Your task to perform on an android device: Go to calendar. Show me events next week Image 0: 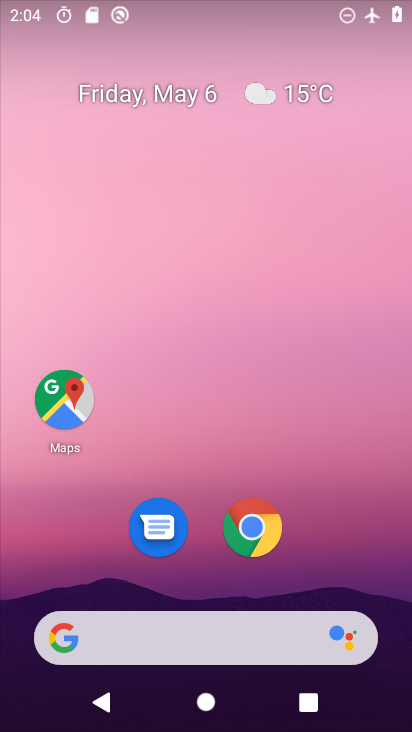
Step 0: drag from (298, 497) to (85, 101)
Your task to perform on an android device: Go to calendar. Show me events next week Image 1: 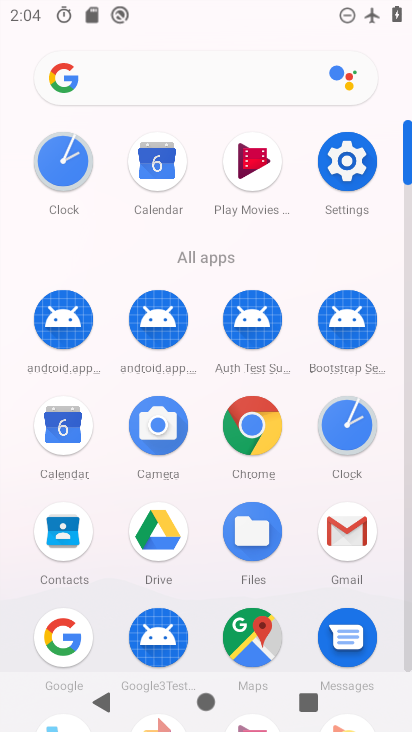
Step 1: click (168, 171)
Your task to perform on an android device: Go to calendar. Show me events next week Image 2: 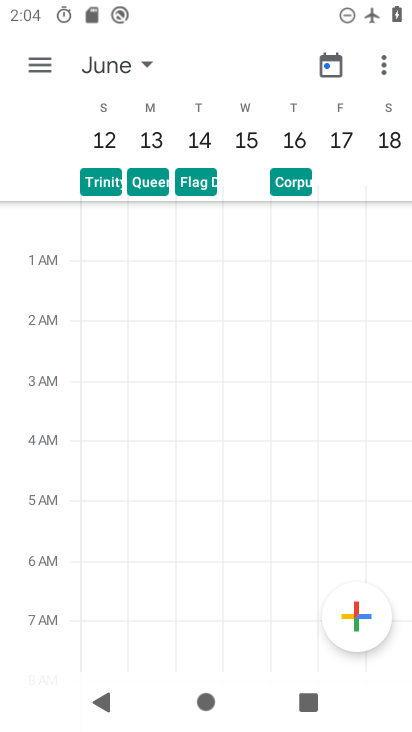
Step 2: click (124, 63)
Your task to perform on an android device: Go to calendar. Show me events next week Image 3: 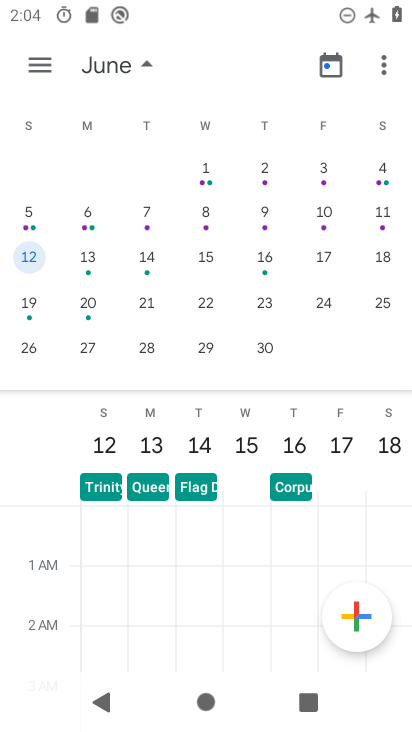
Step 3: drag from (28, 290) to (382, 306)
Your task to perform on an android device: Go to calendar. Show me events next week Image 4: 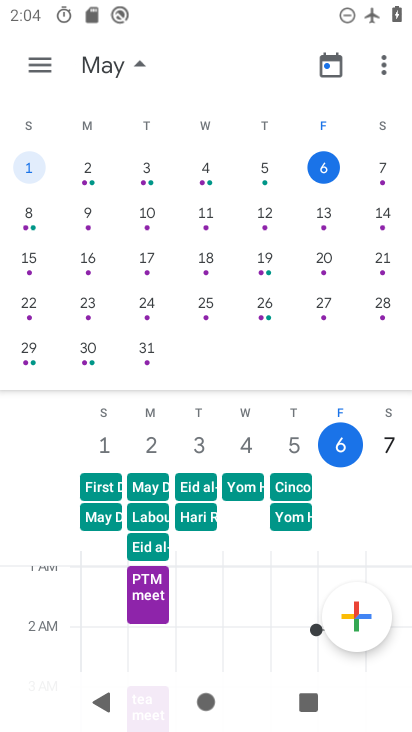
Step 4: click (328, 168)
Your task to perform on an android device: Go to calendar. Show me events next week Image 5: 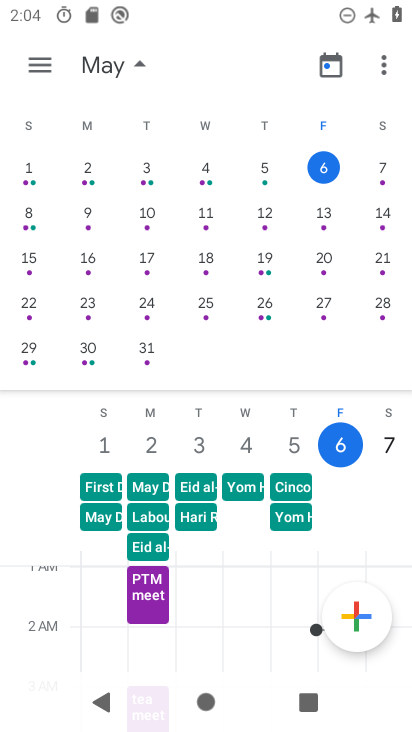
Step 5: click (328, 168)
Your task to perform on an android device: Go to calendar. Show me events next week Image 6: 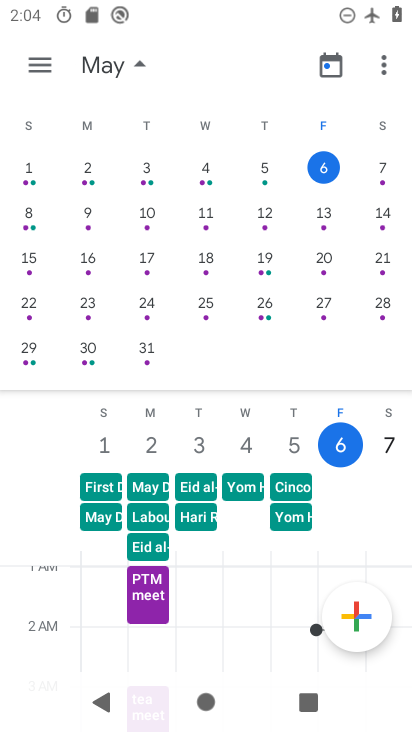
Step 6: click (45, 63)
Your task to perform on an android device: Go to calendar. Show me events next week Image 7: 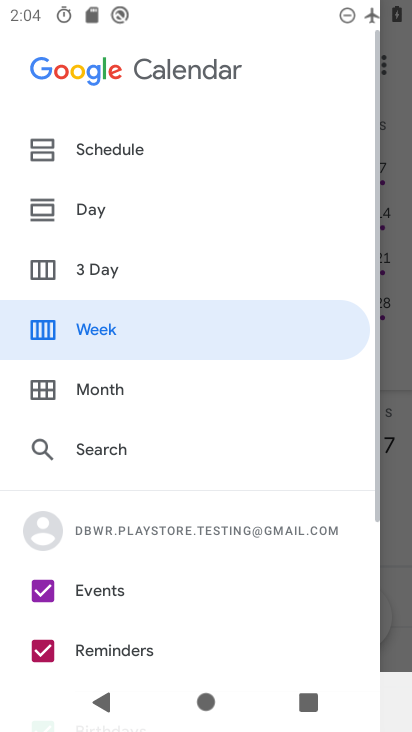
Step 7: click (99, 332)
Your task to perform on an android device: Go to calendar. Show me events next week Image 8: 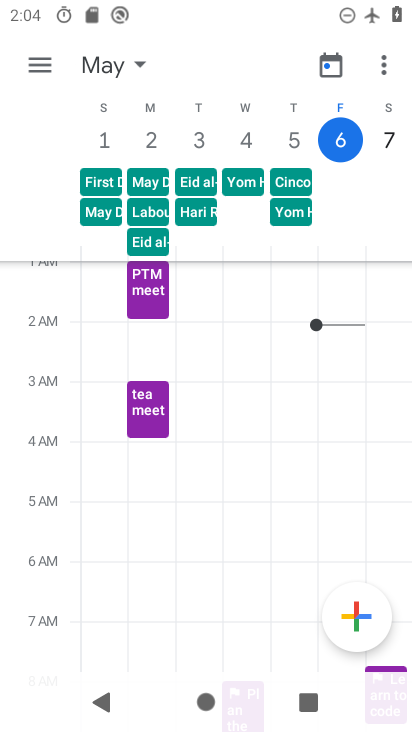
Step 8: task complete